Your task to perform on an android device: Search for "logitech g pro" on newegg.com, select the first entry, add it to the cart, then select checkout. Image 0: 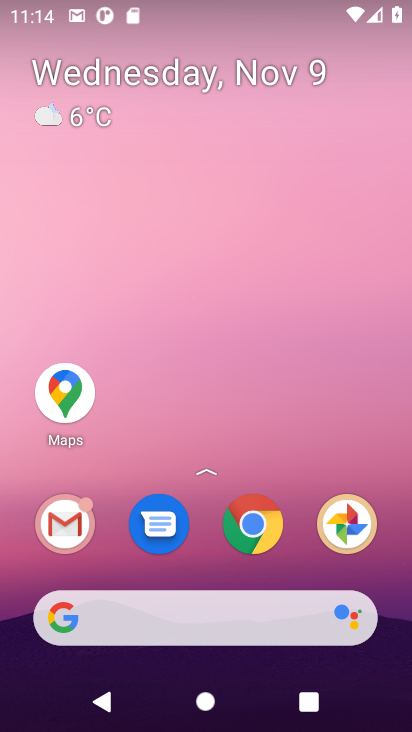
Step 0: click (187, 645)
Your task to perform on an android device: Search for "logitech g pro" on newegg.com, select the first entry, add it to the cart, then select checkout. Image 1: 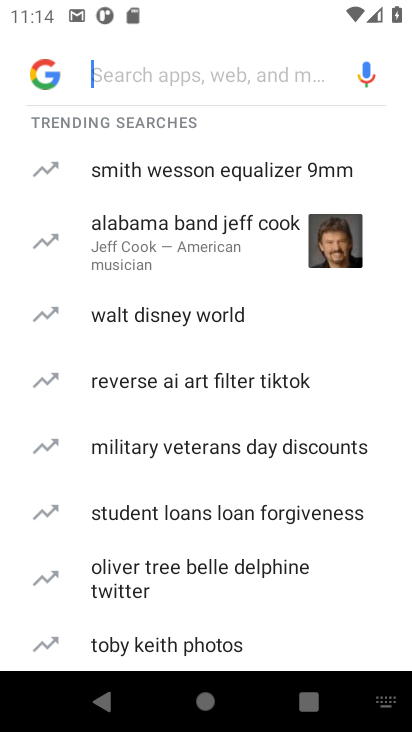
Step 1: type "logitech g pro on newegg"
Your task to perform on an android device: Search for "logitech g pro" on newegg.com, select the first entry, add it to the cart, then select checkout. Image 2: 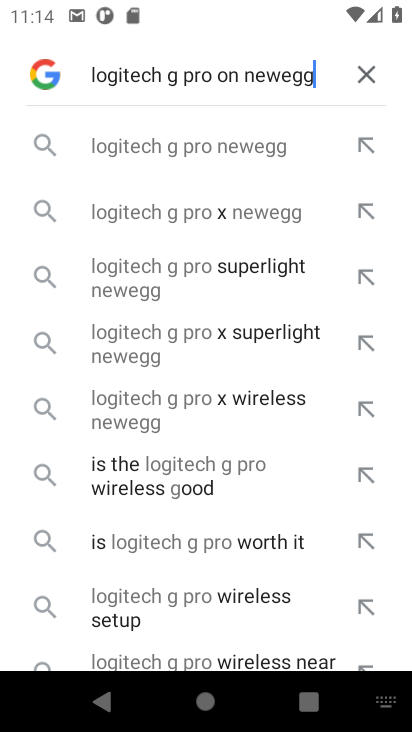
Step 2: click (190, 151)
Your task to perform on an android device: Search for "logitech g pro" on newegg.com, select the first entry, add it to the cart, then select checkout. Image 3: 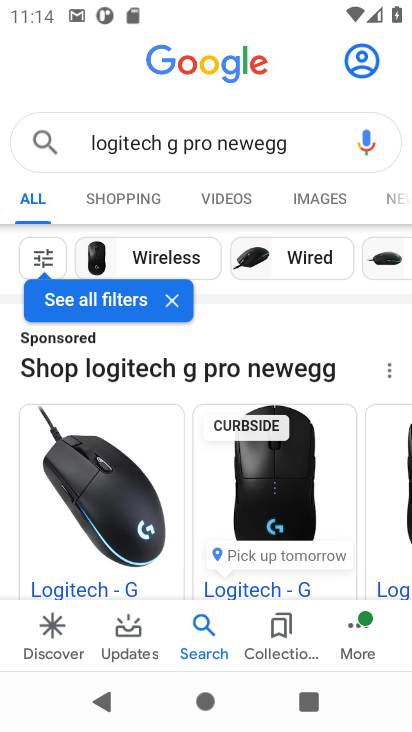
Step 3: drag from (160, 538) to (271, 283)
Your task to perform on an android device: Search for "logitech g pro" on newegg.com, select the first entry, add it to the cart, then select checkout. Image 4: 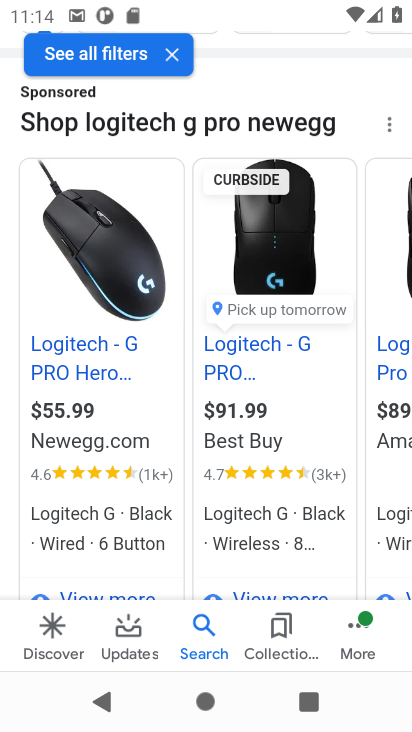
Step 4: click (89, 345)
Your task to perform on an android device: Search for "logitech g pro" on newegg.com, select the first entry, add it to the cart, then select checkout. Image 5: 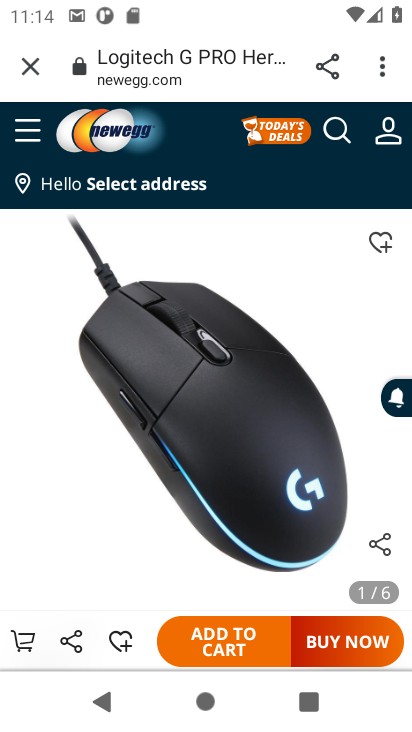
Step 5: click (203, 639)
Your task to perform on an android device: Search for "logitech g pro" on newegg.com, select the first entry, add it to the cart, then select checkout. Image 6: 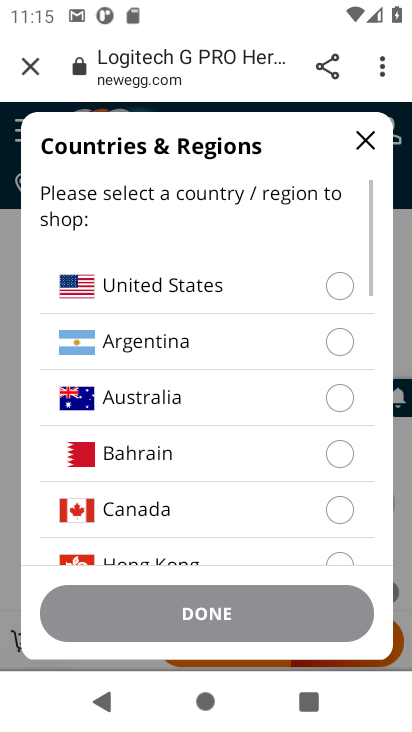
Step 6: click (341, 283)
Your task to perform on an android device: Search for "logitech g pro" on newegg.com, select the first entry, add it to the cart, then select checkout. Image 7: 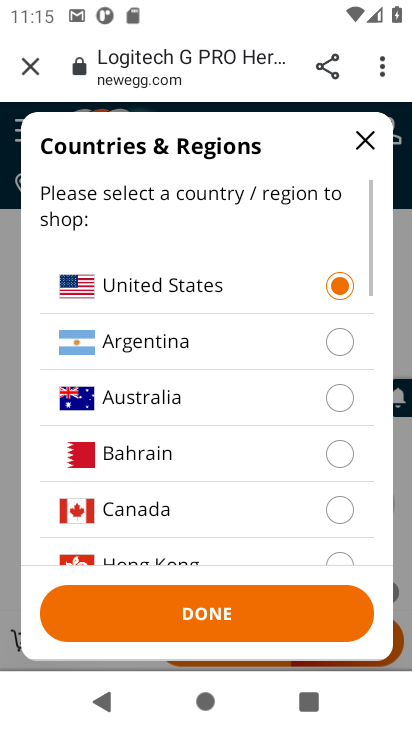
Step 7: click (166, 601)
Your task to perform on an android device: Search for "logitech g pro" on newegg.com, select the first entry, add it to the cart, then select checkout. Image 8: 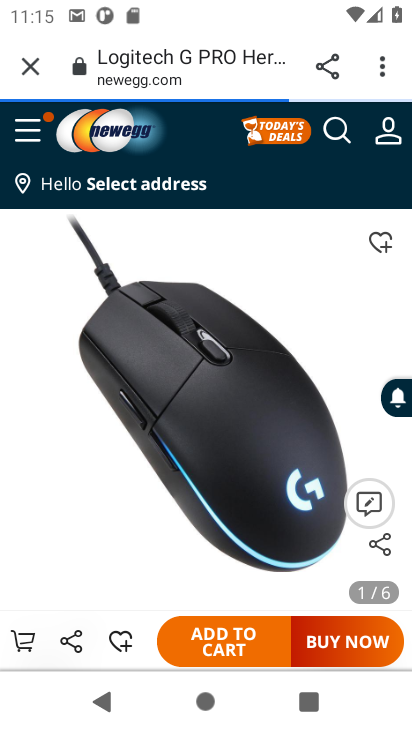
Step 8: click (221, 644)
Your task to perform on an android device: Search for "logitech g pro" on newegg.com, select the first entry, add it to the cart, then select checkout. Image 9: 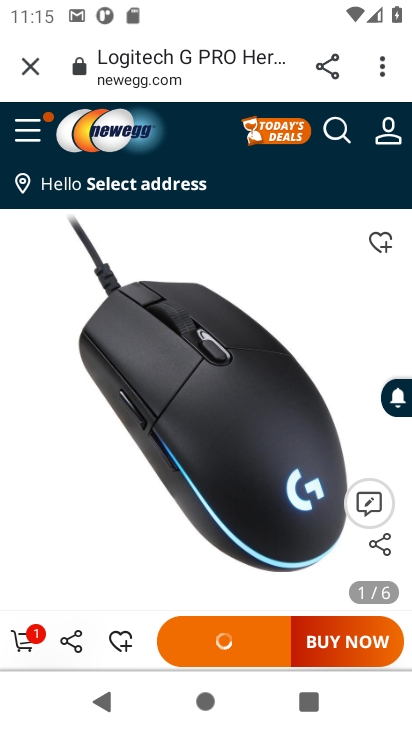
Step 9: click (36, 634)
Your task to perform on an android device: Search for "logitech g pro" on newegg.com, select the first entry, add it to the cart, then select checkout. Image 10: 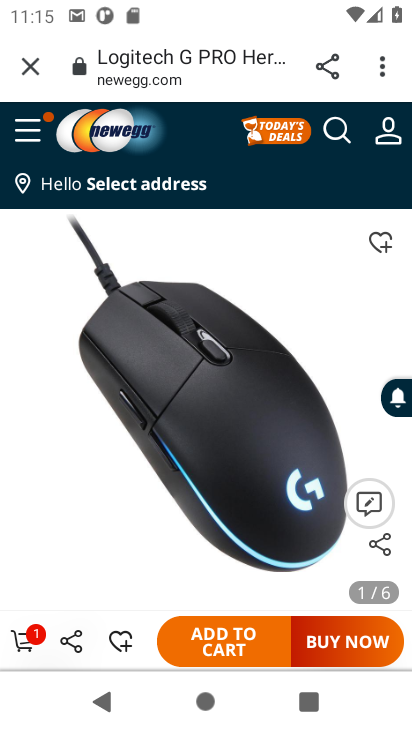
Step 10: click (28, 636)
Your task to perform on an android device: Search for "logitech g pro" on newegg.com, select the first entry, add it to the cart, then select checkout. Image 11: 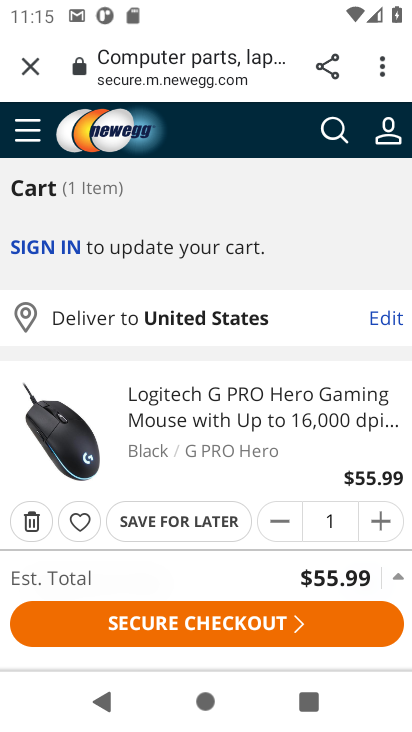
Step 11: click (197, 629)
Your task to perform on an android device: Search for "logitech g pro" on newegg.com, select the first entry, add it to the cart, then select checkout. Image 12: 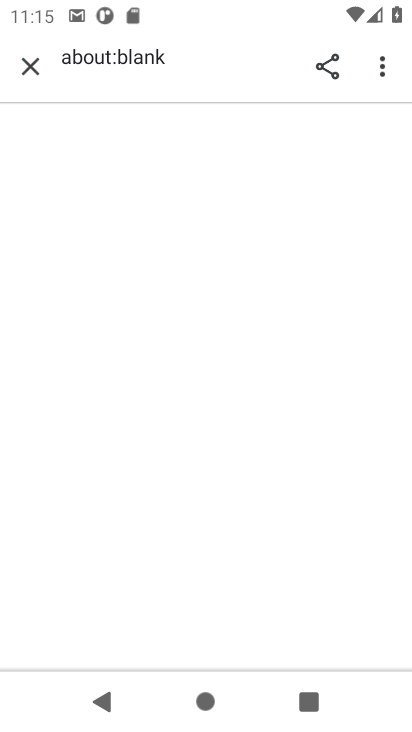
Step 12: task complete